Your task to perform on an android device: Go to Android settings Image 0: 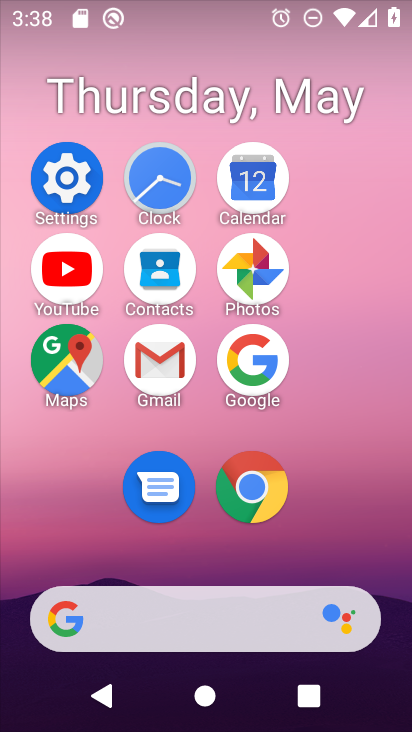
Step 0: click (80, 190)
Your task to perform on an android device: Go to Android settings Image 1: 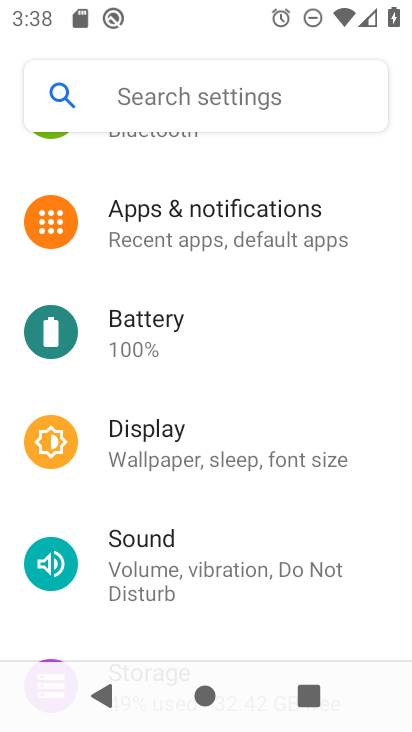
Step 1: task complete